Your task to perform on an android device: Open eBay Image 0: 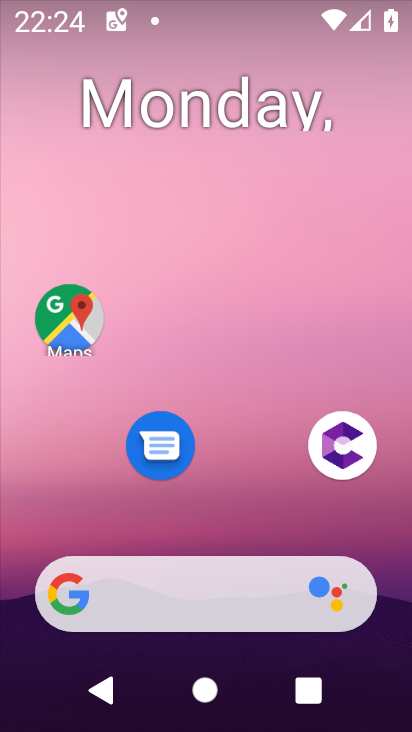
Step 0: press home button
Your task to perform on an android device: Open eBay Image 1: 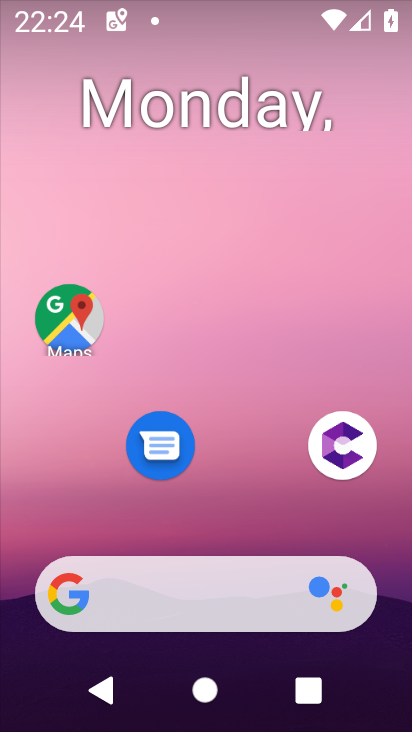
Step 1: click (62, 599)
Your task to perform on an android device: Open eBay Image 2: 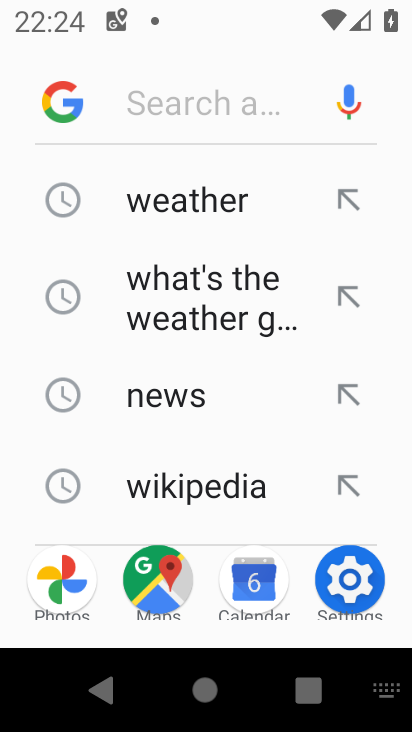
Step 2: type "eBay"
Your task to perform on an android device: Open eBay Image 3: 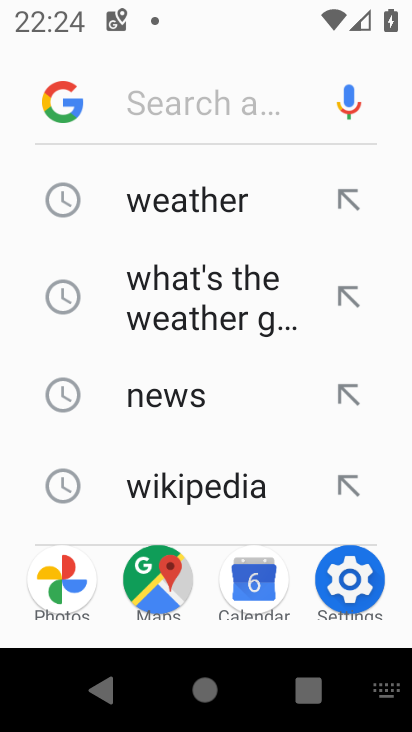
Step 3: click (178, 120)
Your task to perform on an android device: Open eBay Image 4: 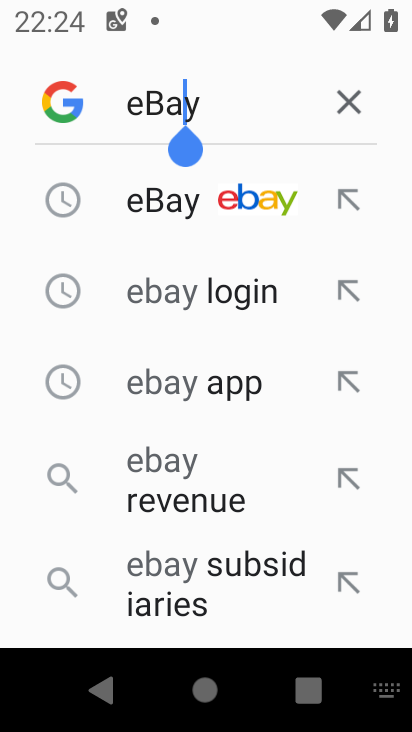
Step 4: click (182, 212)
Your task to perform on an android device: Open eBay Image 5: 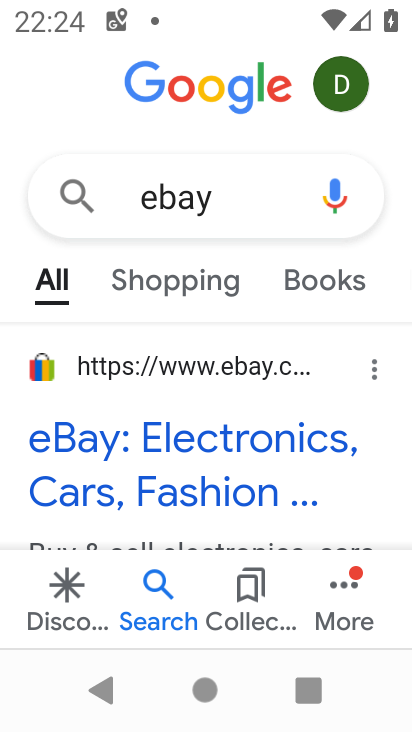
Step 5: click (64, 446)
Your task to perform on an android device: Open eBay Image 6: 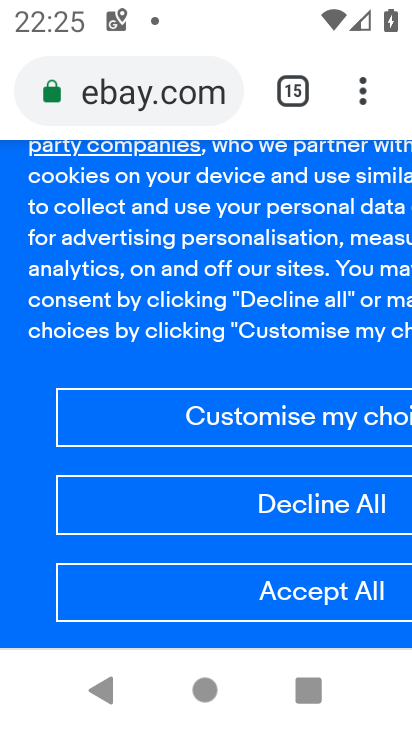
Step 6: task complete